Your task to perform on an android device: Go to Wikipedia Image 0: 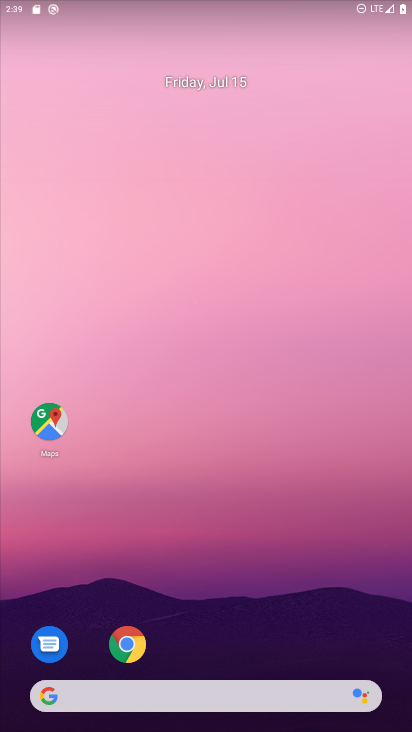
Step 0: click (115, 643)
Your task to perform on an android device: Go to Wikipedia Image 1: 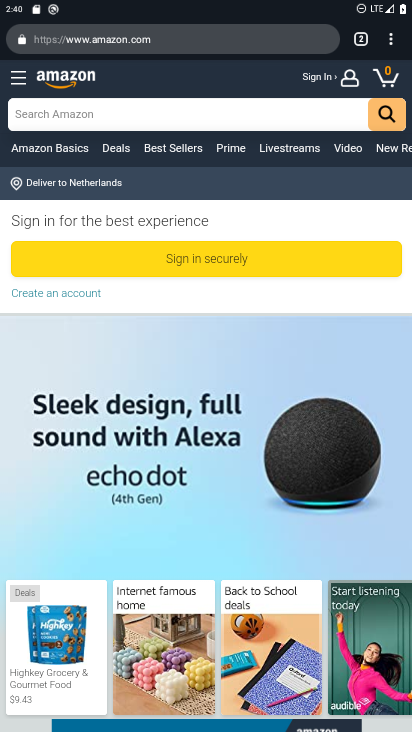
Step 1: click (353, 40)
Your task to perform on an android device: Go to Wikipedia Image 2: 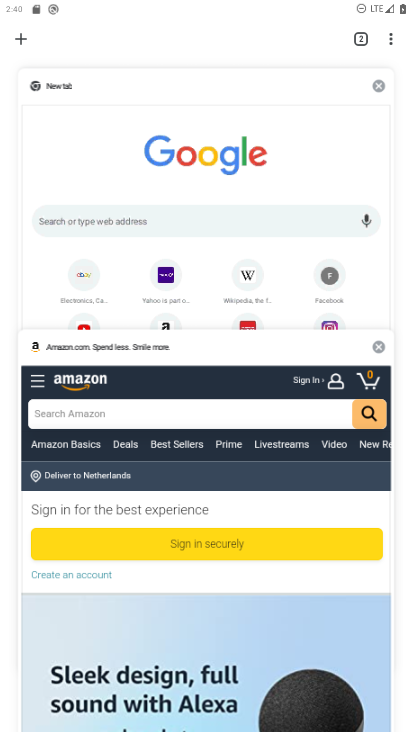
Step 2: click (385, 87)
Your task to perform on an android device: Go to Wikipedia Image 3: 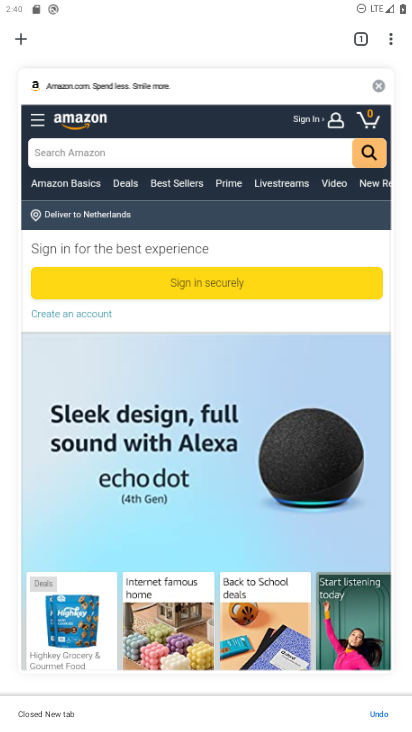
Step 3: click (377, 82)
Your task to perform on an android device: Go to Wikipedia Image 4: 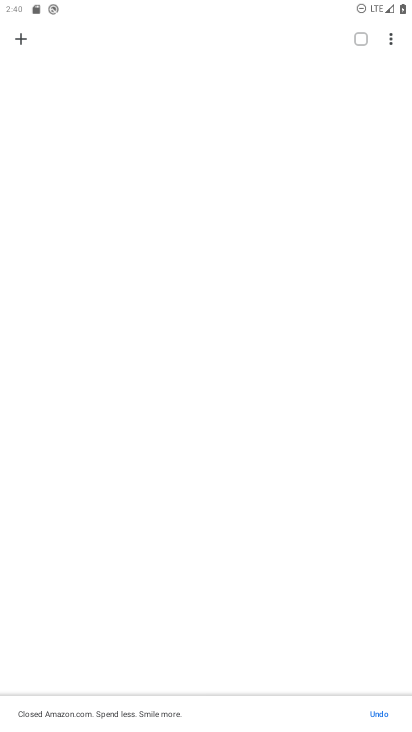
Step 4: click (16, 40)
Your task to perform on an android device: Go to Wikipedia Image 5: 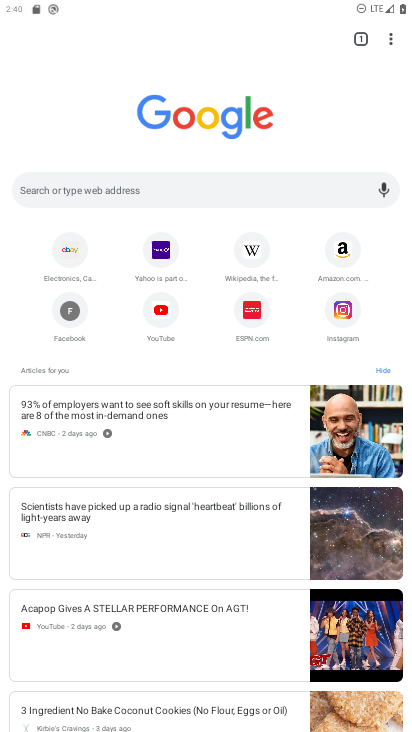
Step 5: click (251, 249)
Your task to perform on an android device: Go to Wikipedia Image 6: 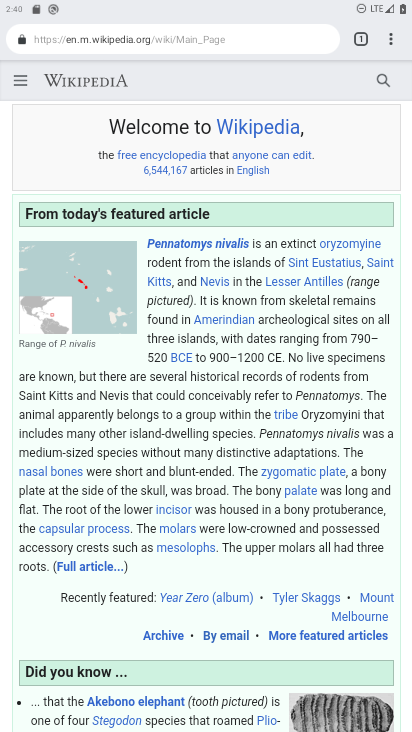
Step 6: task complete